Your task to perform on an android device: change the clock style Image 0: 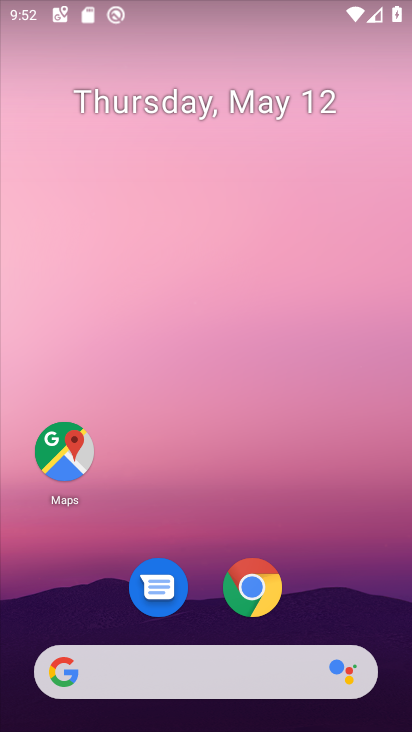
Step 0: drag from (390, 608) to (295, 109)
Your task to perform on an android device: change the clock style Image 1: 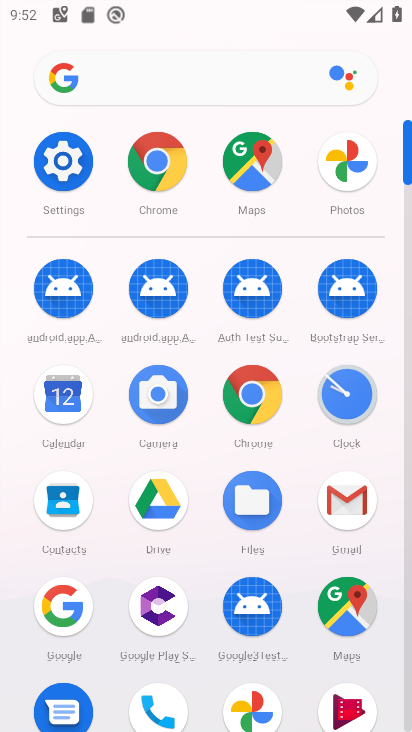
Step 1: click (358, 419)
Your task to perform on an android device: change the clock style Image 2: 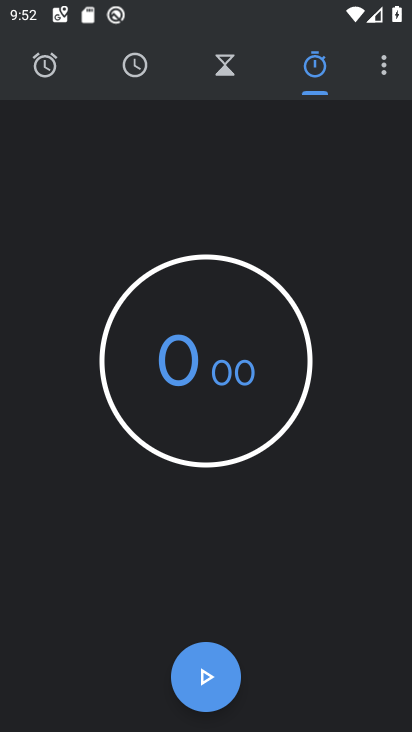
Step 2: click (381, 71)
Your task to perform on an android device: change the clock style Image 3: 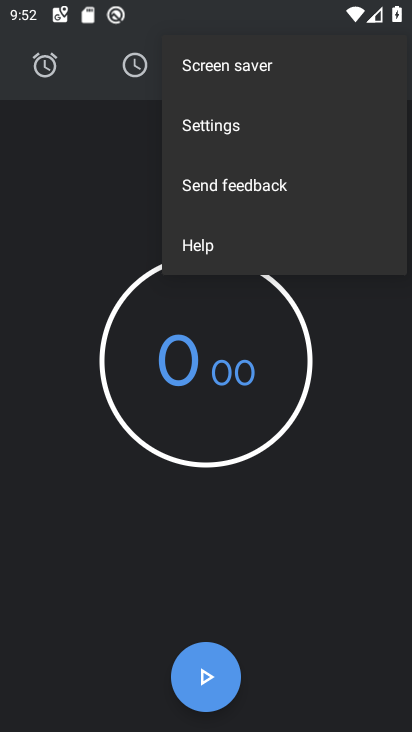
Step 3: click (280, 130)
Your task to perform on an android device: change the clock style Image 4: 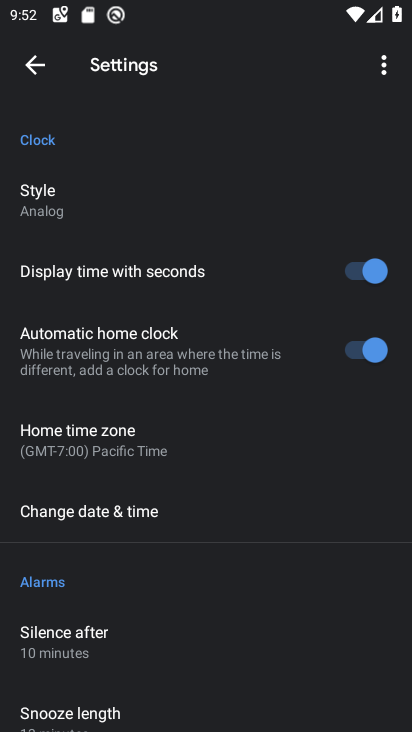
Step 4: click (194, 226)
Your task to perform on an android device: change the clock style Image 5: 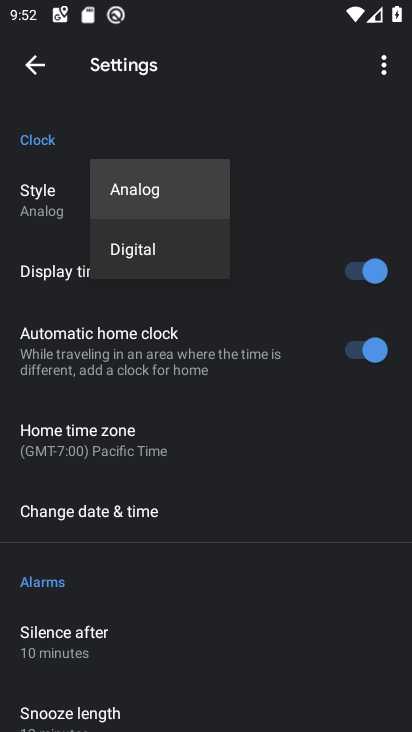
Step 5: click (172, 249)
Your task to perform on an android device: change the clock style Image 6: 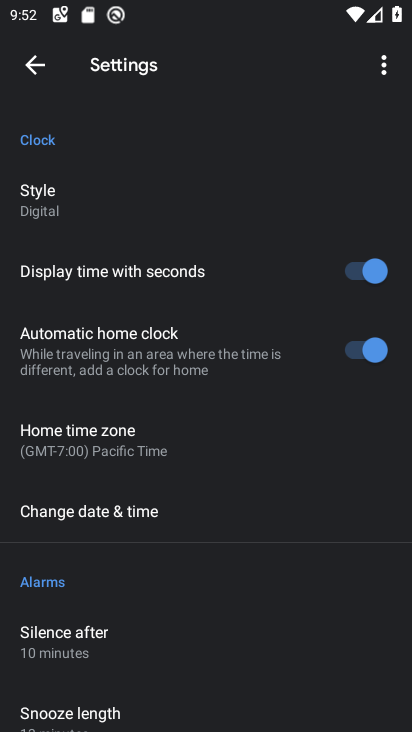
Step 6: task complete